Your task to perform on an android device: add a contact in the contacts app Image 0: 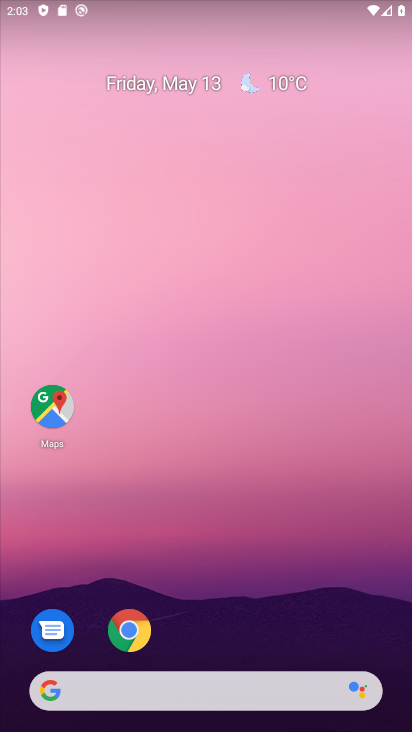
Step 0: drag from (223, 645) to (255, 124)
Your task to perform on an android device: add a contact in the contacts app Image 1: 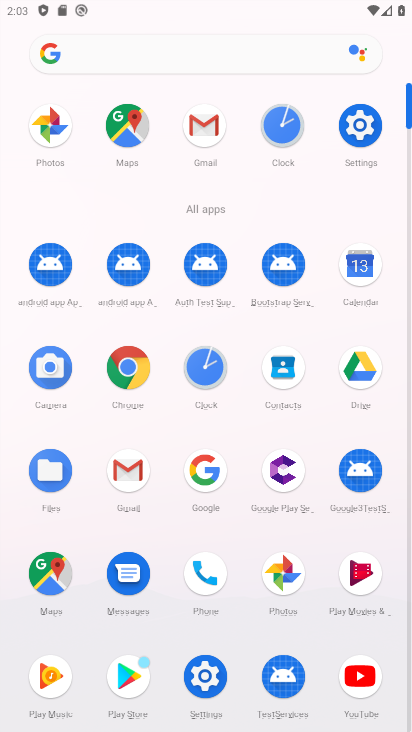
Step 1: click (282, 364)
Your task to perform on an android device: add a contact in the contacts app Image 2: 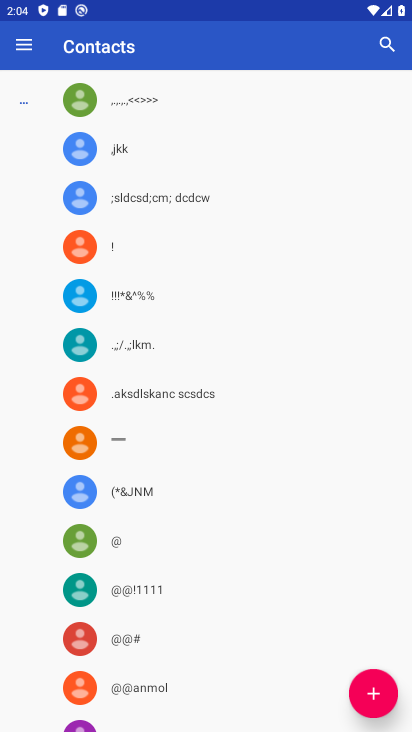
Step 2: click (374, 693)
Your task to perform on an android device: add a contact in the contacts app Image 3: 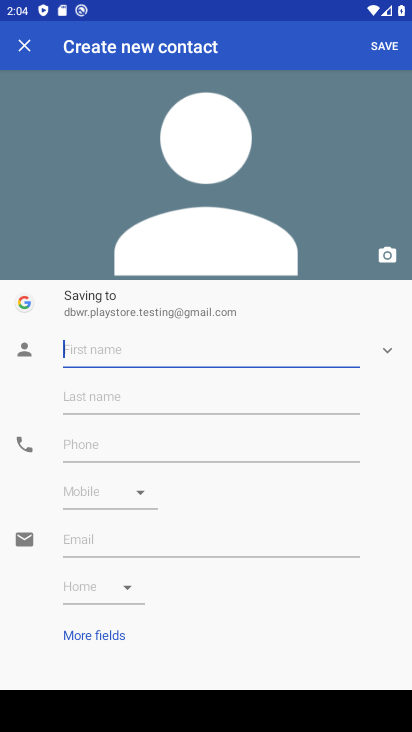
Step 3: type "mnbhgff"
Your task to perform on an android device: add a contact in the contacts app Image 4: 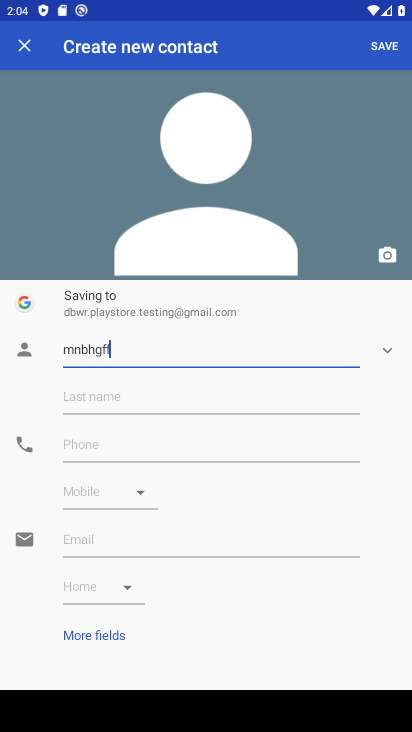
Step 4: click (388, 44)
Your task to perform on an android device: add a contact in the contacts app Image 5: 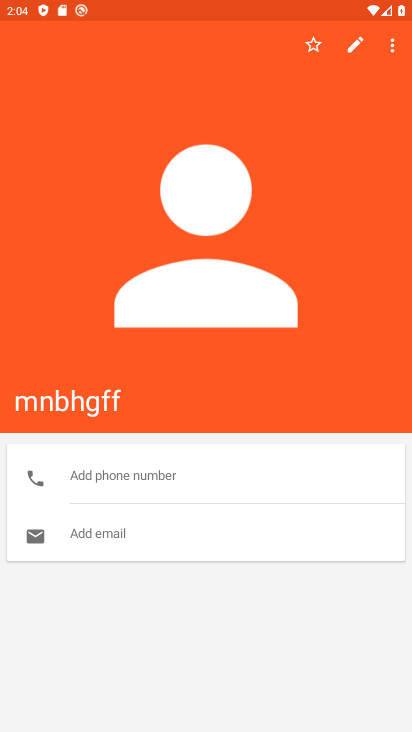
Step 5: task complete